Your task to perform on an android device: delete a single message in the gmail app Image 0: 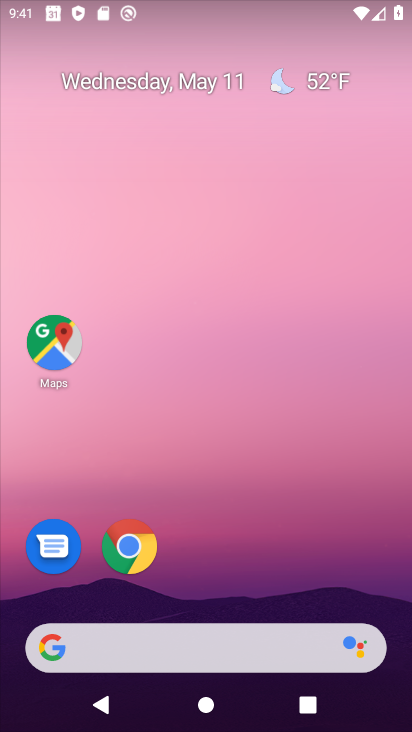
Step 0: drag from (140, 643) to (56, 0)
Your task to perform on an android device: delete a single message in the gmail app Image 1: 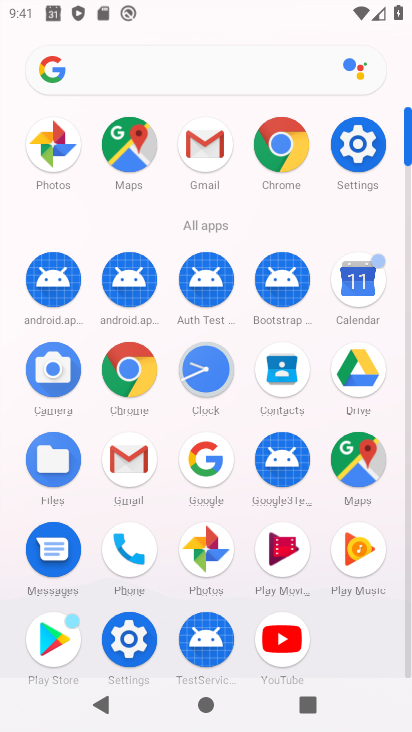
Step 1: click (140, 444)
Your task to perform on an android device: delete a single message in the gmail app Image 2: 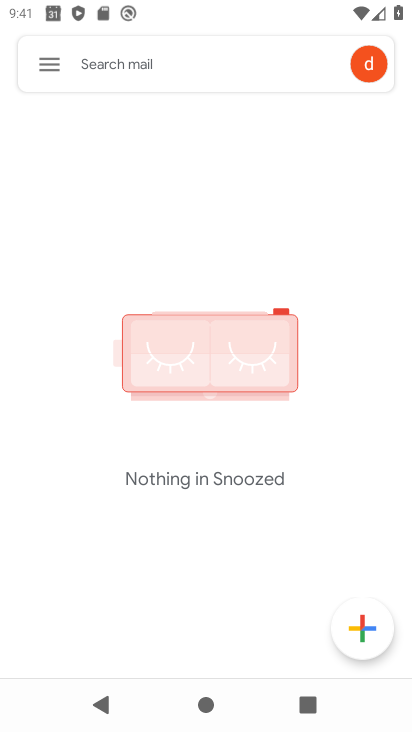
Step 2: click (40, 66)
Your task to perform on an android device: delete a single message in the gmail app Image 3: 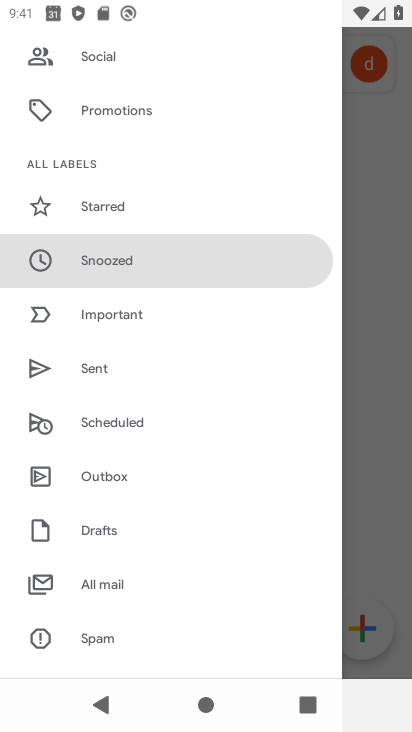
Step 3: click (152, 575)
Your task to perform on an android device: delete a single message in the gmail app Image 4: 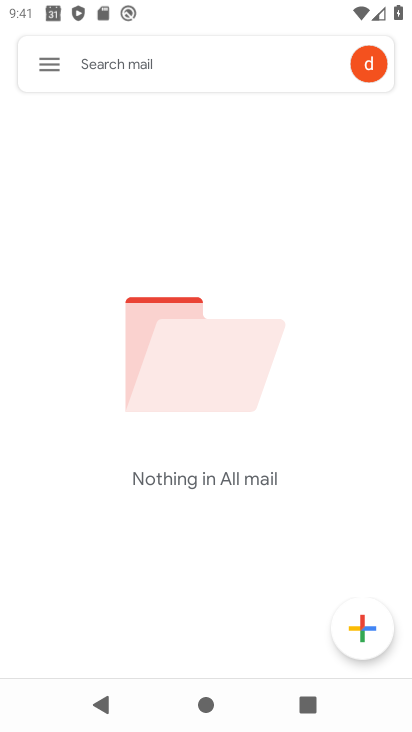
Step 4: click (47, 68)
Your task to perform on an android device: delete a single message in the gmail app Image 5: 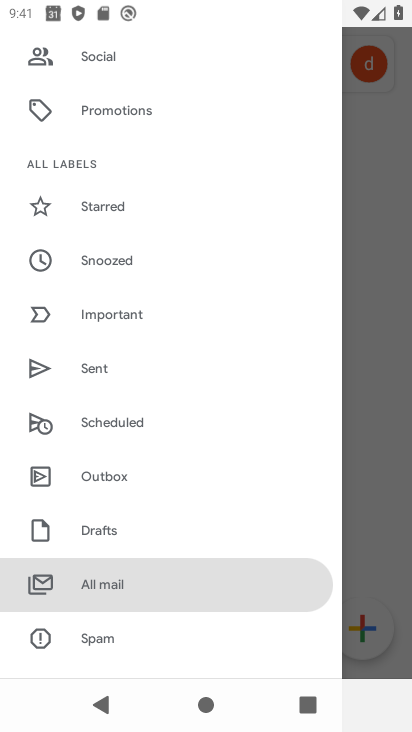
Step 5: drag from (144, 542) to (116, 446)
Your task to perform on an android device: delete a single message in the gmail app Image 6: 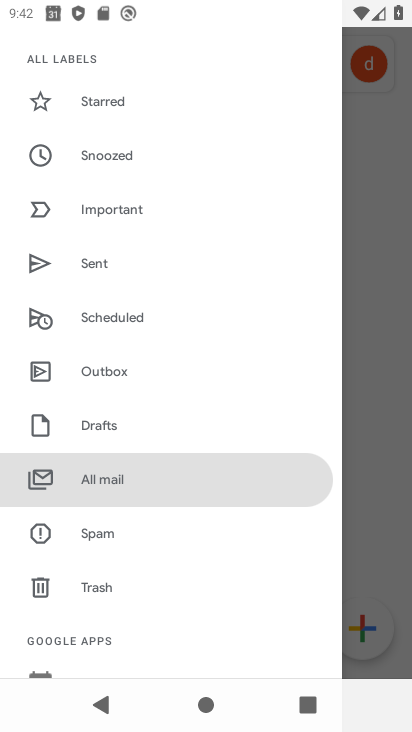
Step 6: click (107, 484)
Your task to perform on an android device: delete a single message in the gmail app Image 7: 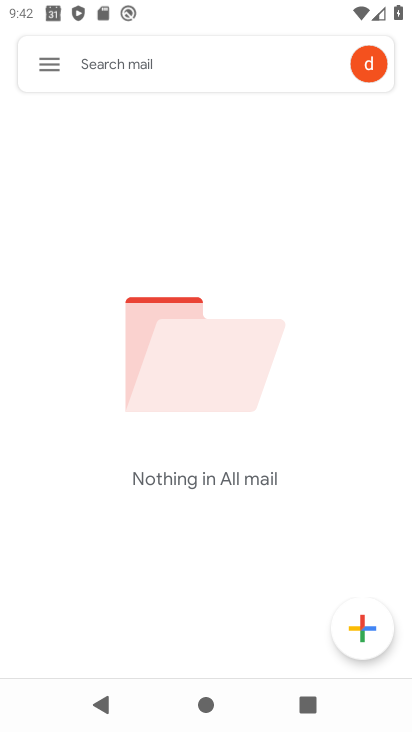
Step 7: task complete